Your task to perform on an android device: Open Yahoo.com Image 0: 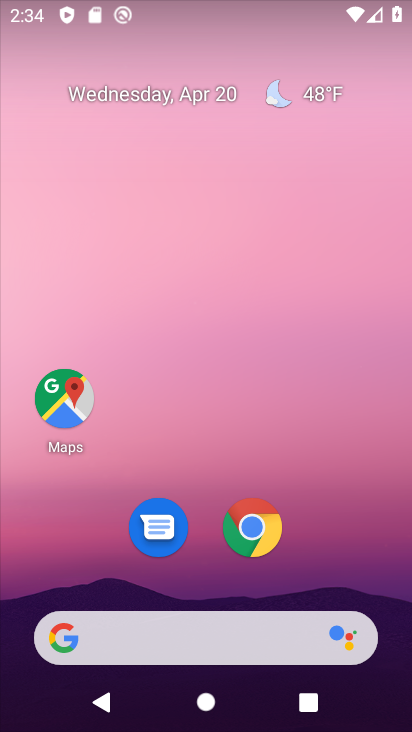
Step 0: drag from (177, 558) to (317, 79)
Your task to perform on an android device: Open Yahoo.com Image 1: 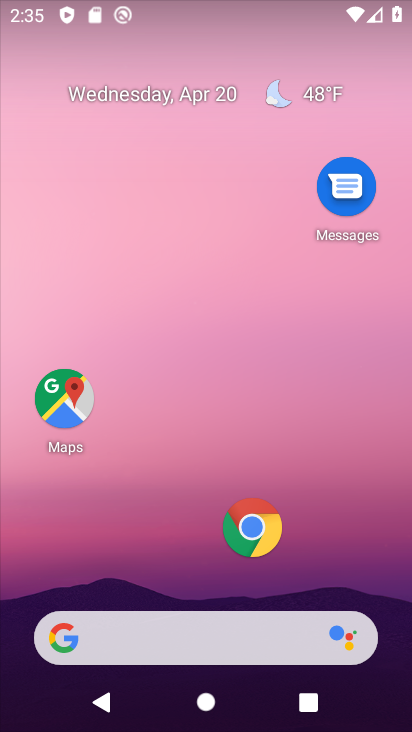
Step 1: drag from (173, 619) to (308, 158)
Your task to perform on an android device: Open Yahoo.com Image 2: 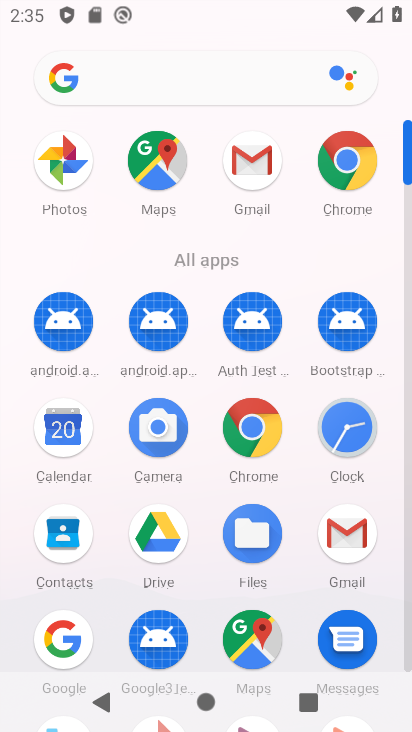
Step 2: click (352, 173)
Your task to perform on an android device: Open Yahoo.com Image 3: 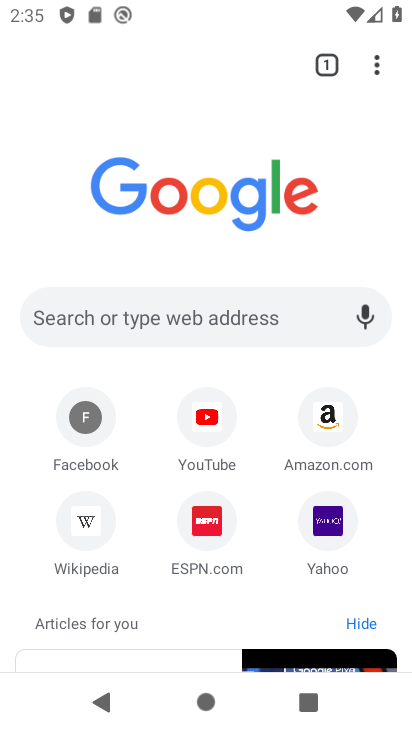
Step 3: click (318, 526)
Your task to perform on an android device: Open Yahoo.com Image 4: 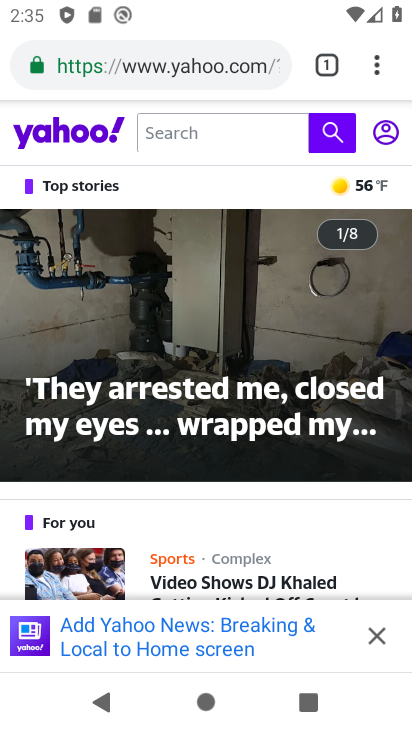
Step 4: task complete